Your task to perform on an android device: check data usage Image 0: 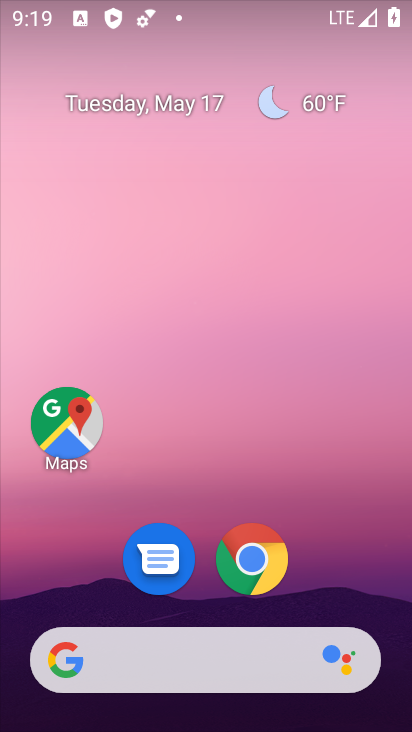
Step 0: drag from (195, 600) to (212, 247)
Your task to perform on an android device: check data usage Image 1: 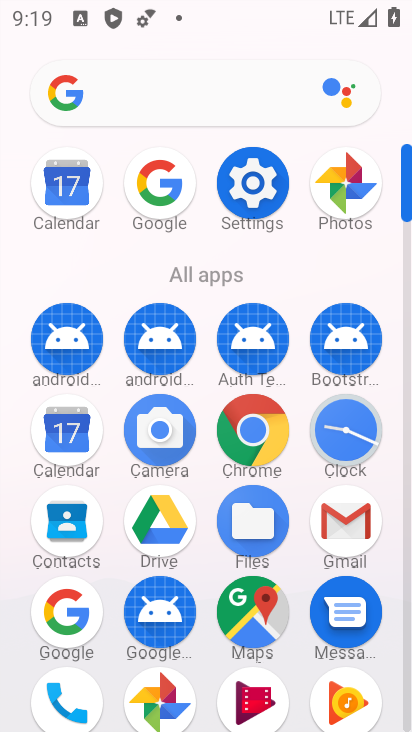
Step 1: click (247, 198)
Your task to perform on an android device: check data usage Image 2: 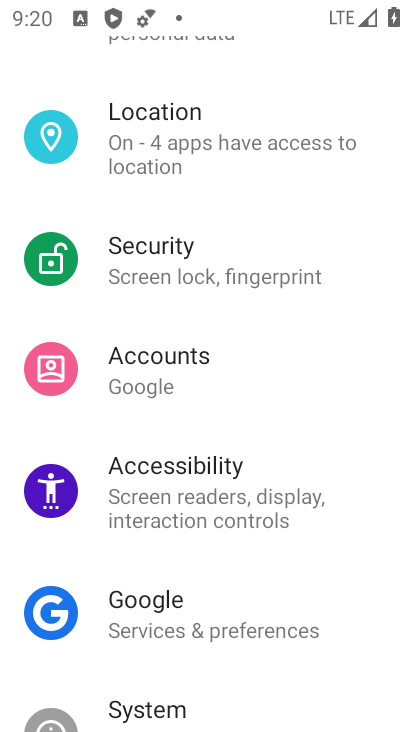
Step 2: drag from (196, 194) to (204, 609)
Your task to perform on an android device: check data usage Image 3: 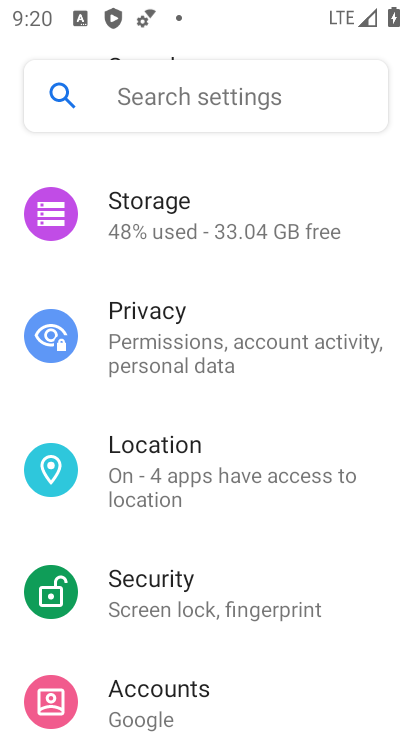
Step 3: drag from (179, 187) to (197, 553)
Your task to perform on an android device: check data usage Image 4: 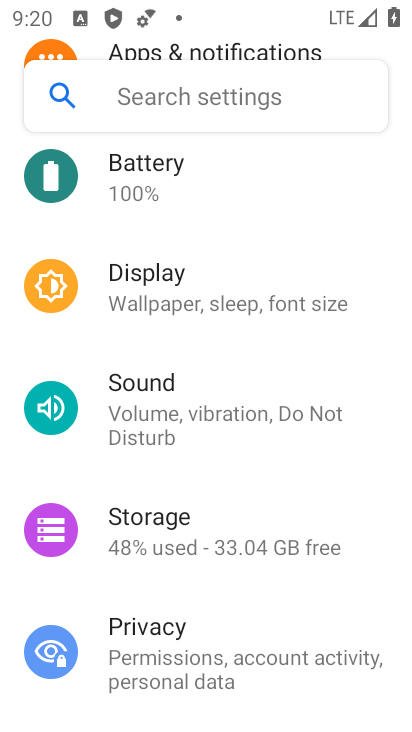
Step 4: drag from (206, 182) to (231, 604)
Your task to perform on an android device: check data usage Image 5: 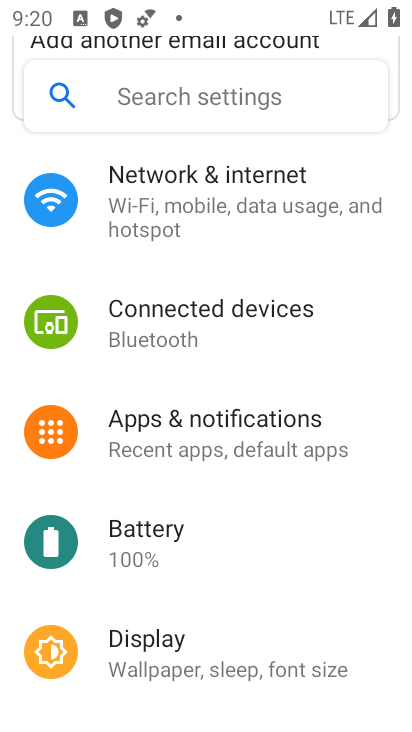
Step 5: click (214, 209)
Your task to perform on an android device: check data usage Image 6: 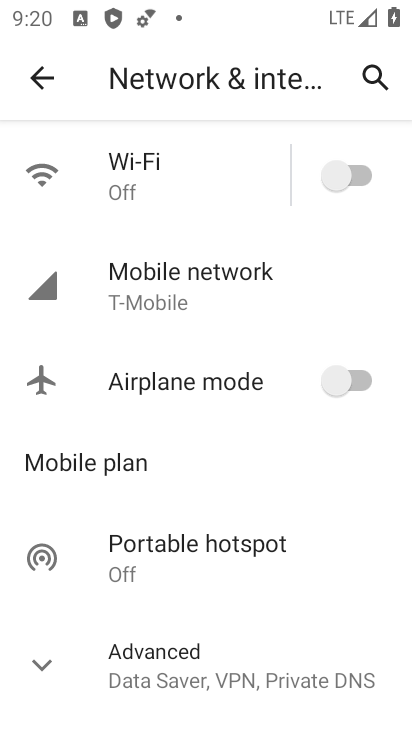
Step 6: click (219, 274)
Your task to perform on an android device: check data usage Image 7: 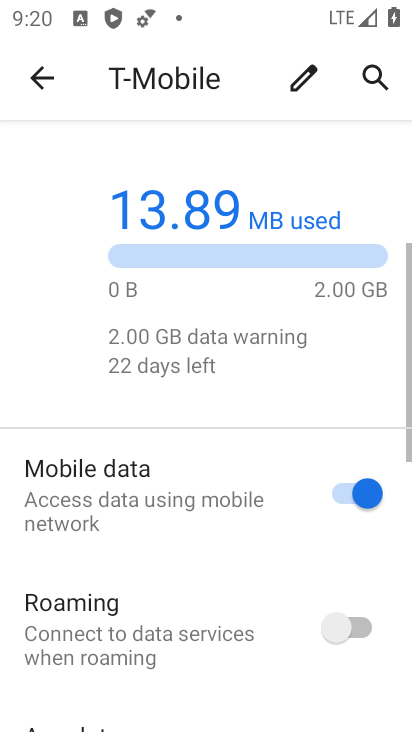
Step 7: drag from (218, 608) to (236, 289)
Your task to perform on an android device: check data usage Image 8: 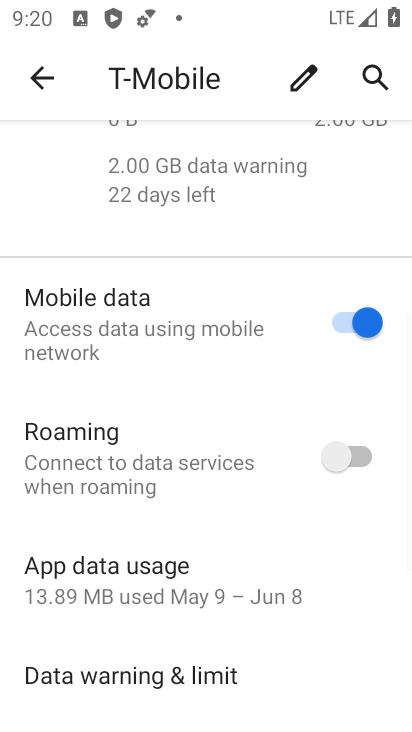
Step 8: click (181, 595)
Your task to perform on an android device: check data usage Image 9: 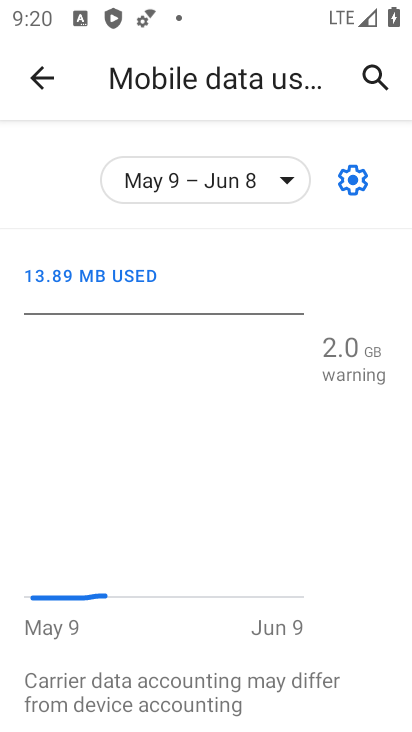
Step 9: task complete